Your task to perform on an android device: turn off translation in the chrome app Image 0: 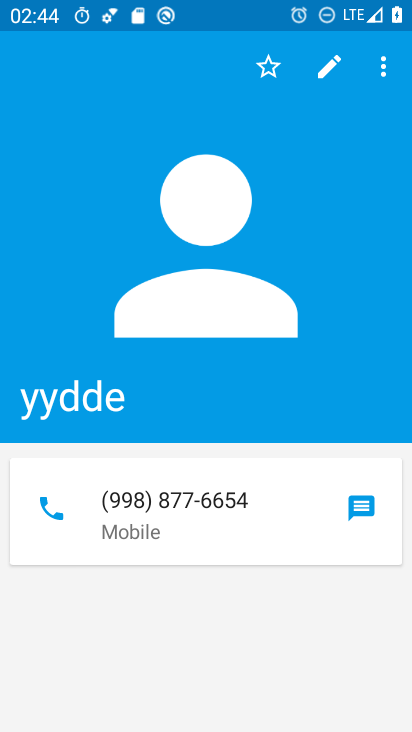
Step 0: press home button
Your task to perform on an android device: turn off translation in the chrome app Image 1: 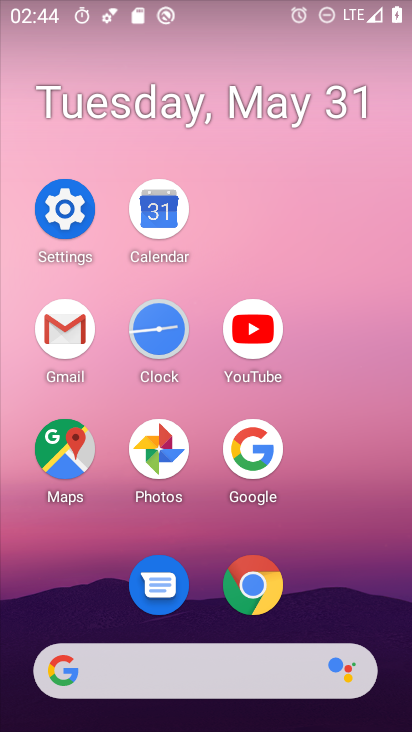
Step 1: click (261, 577)
Your task to perform on an android device: turn off translation in the chrome app Image 2: 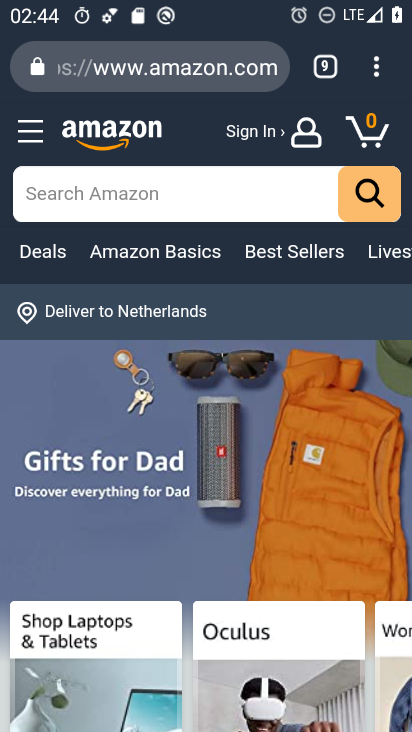
Step 2: click (367, 61)
Your task to perform on an android device: turn off translation in the chrome app Image 3: 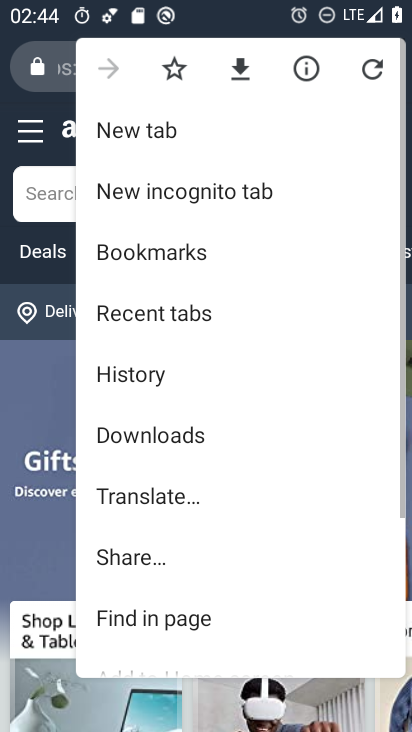
Step 3: drag from (224, 515) to (239, 159)
Your task to perform on an android device: turn off translation in the chrome app Image 4: 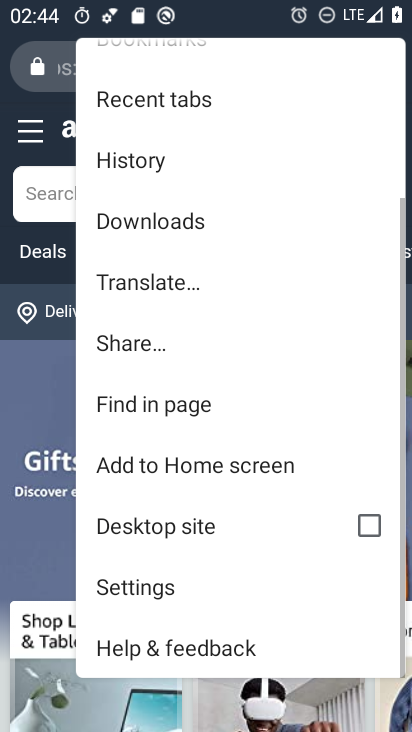
Step 4: click (153, 595)
Your task to perform on an android device: turn off translation in the chrome app Image 5: 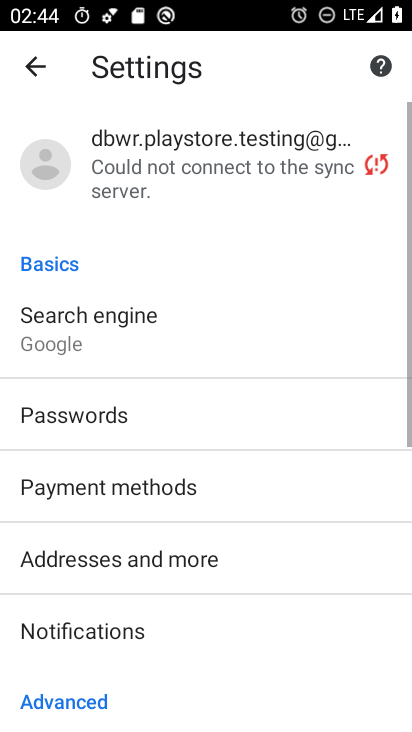
Step 5: drag from (152, 547) to (227, 175)
Your task to perform on an android device: turn off translation in the chrome app Image 6: 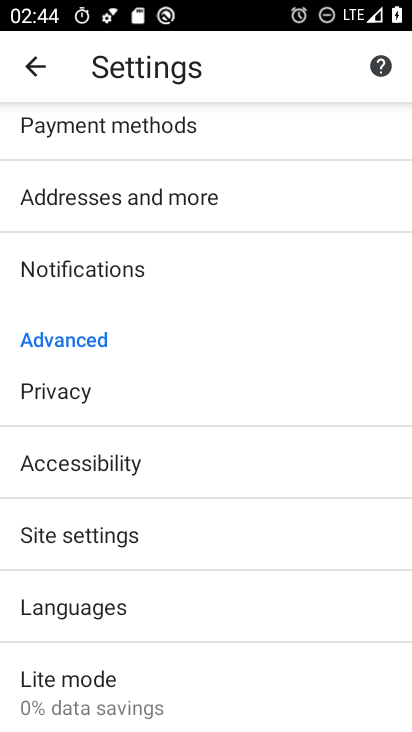
Step 6: click (150, 593)
Your task to perform on an android device: turn off translation in the chrome app Image 7: 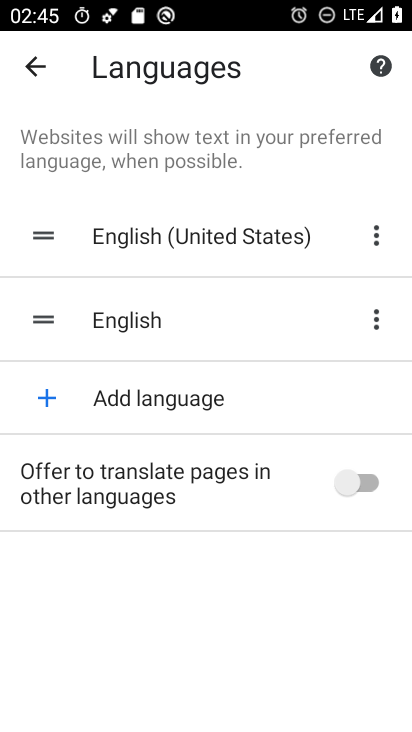
Step 7: task complete